Your task to perform on an android device: open a bookmark in the chrome app Image 0: 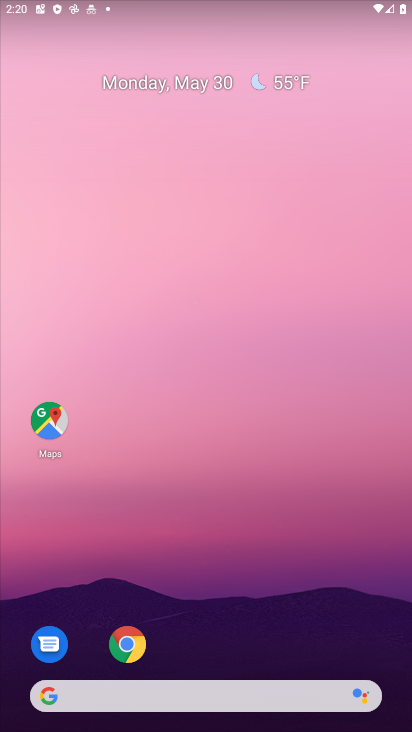
Step 0: click (128, 659)
Your task to perform on an android device: open a bookmark in the chrome app Image 1: 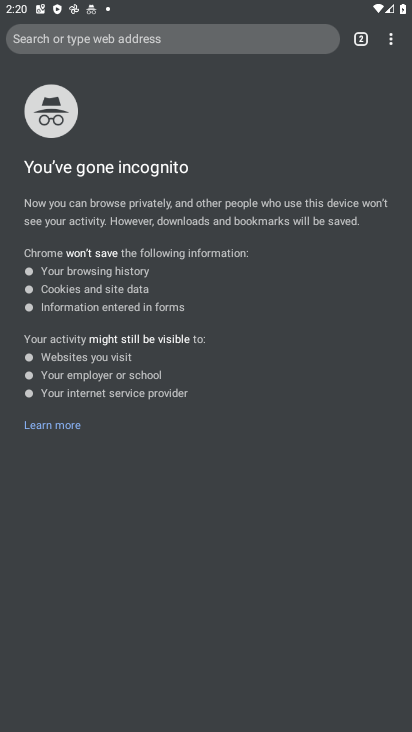
Step 1: task complete